Your task to perform on an android device: Search for sushi restaurants on Maps Image 0: 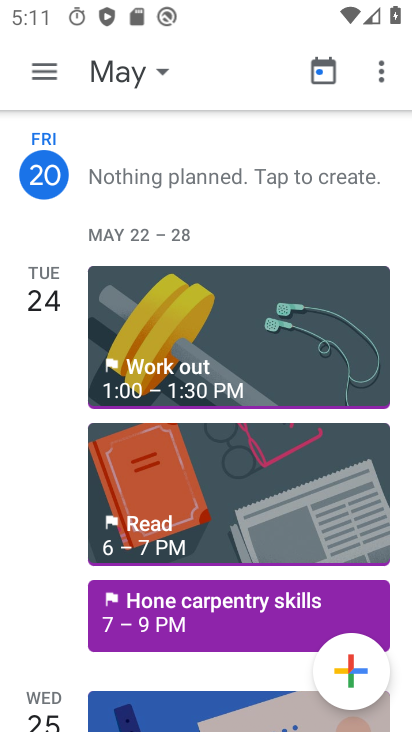
Step 0: press home button
Your task to perform on an android device: Search for sushi restaurants on Maps Image 1: 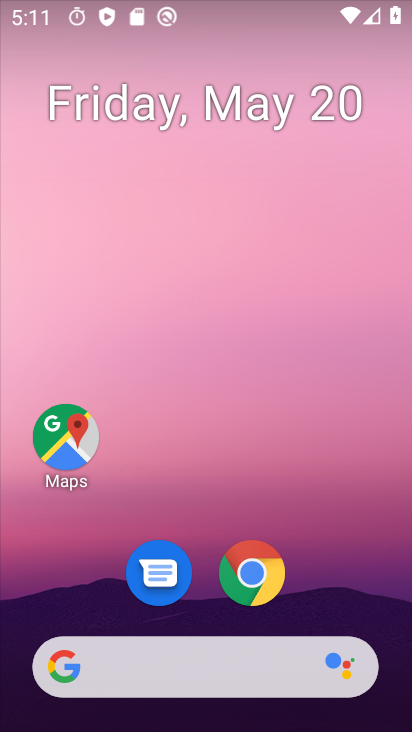
Step 1: click (67, 440)
Your task to perform on an android device: Search for sushi restaurants on Maps Image 2: 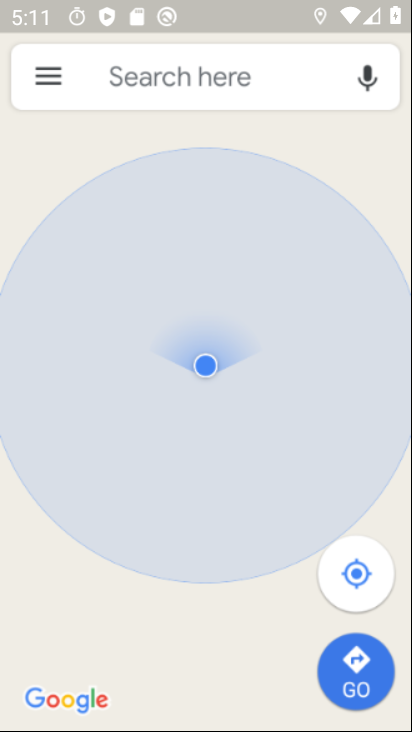
Step 2: click (203, 83)
Your task to perform on an android device: Search for sushi restaurants on Maps Image 3: 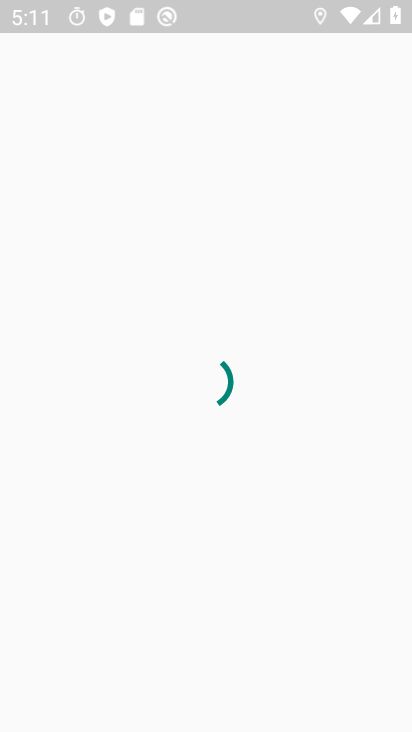
Step 3: click (199, 74)
Your task to perform on an android device: Search for sushi restaurants on Maps Image 4: 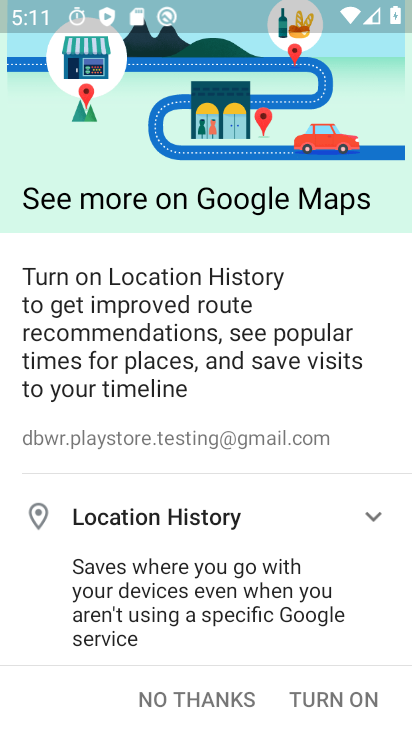
Step 4: click (234, 698)
Your task to perform on an android device: Search for sushi restaurants on Maps Image 5: 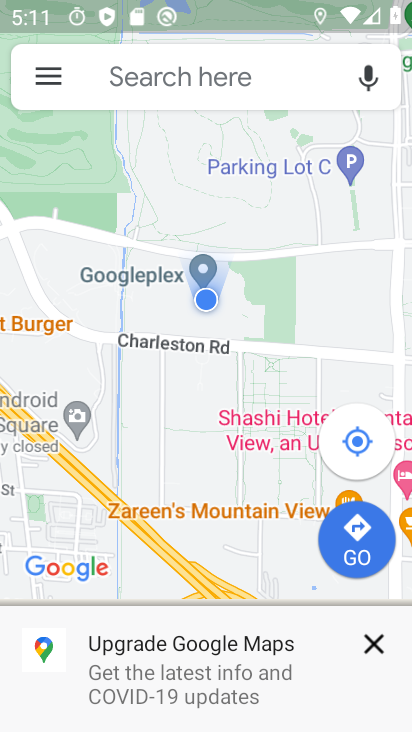
Step 5: click (198, 75)
Your task to perform on an android device: Search for sushi restaurants on Maps Image 6: 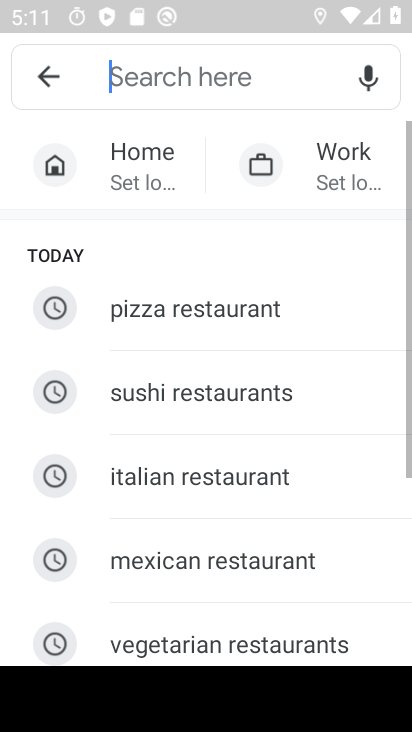
Step 6: click (191, 393)
Your task to perform on an android device: Search for sushi restaurants on Maps Image 7: 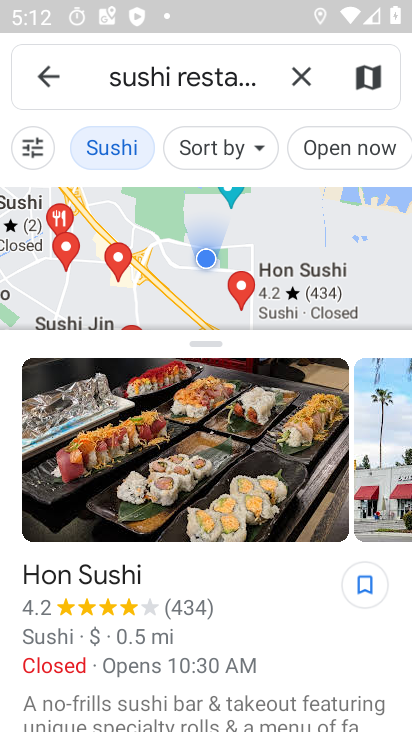
Step 7: task complete